Your task to perform on an android device: check android version Image 0: 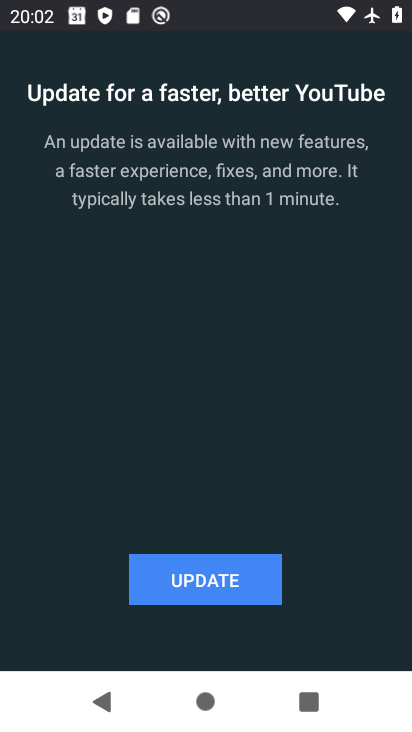
Step 0: press home button
Your task to perform on an android device: check android version Image 1: 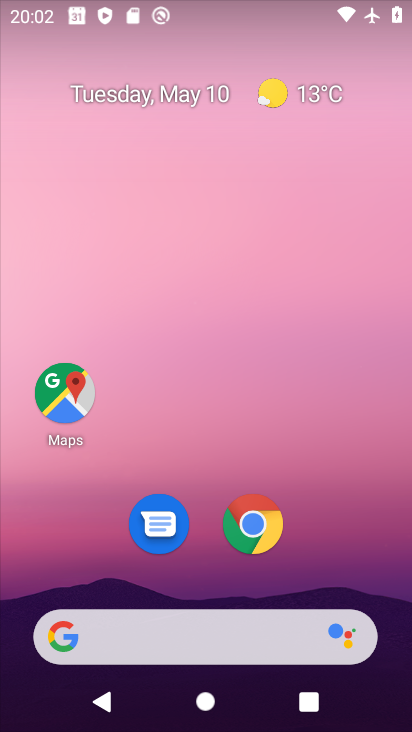
Step 1: drag from (307, 533) to (269, 23)
Your task to perform on an android device: check android version Image 2: 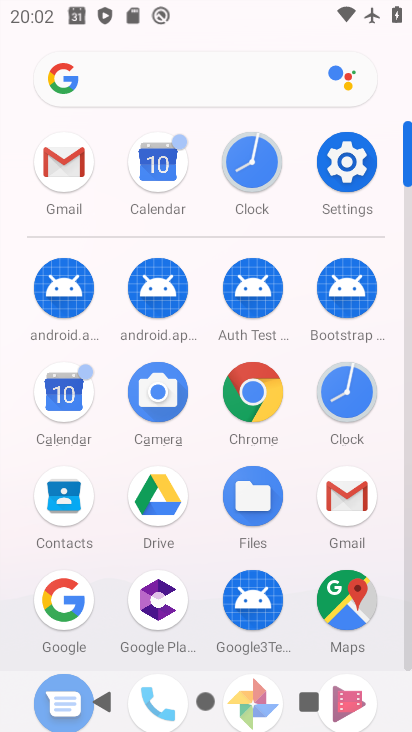
Step 2: click (349, 154)
Your task to perform on an android device: check android version Image 3: 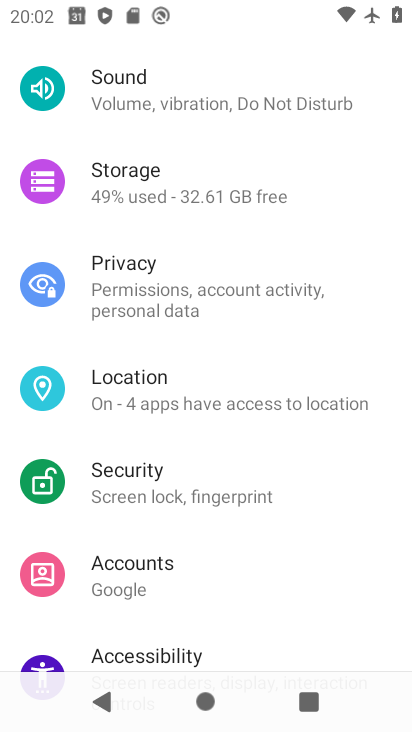
Step 3: drag from (274, 545) to (264, 51)
Your task to perform on an android device: check android version Image 4: 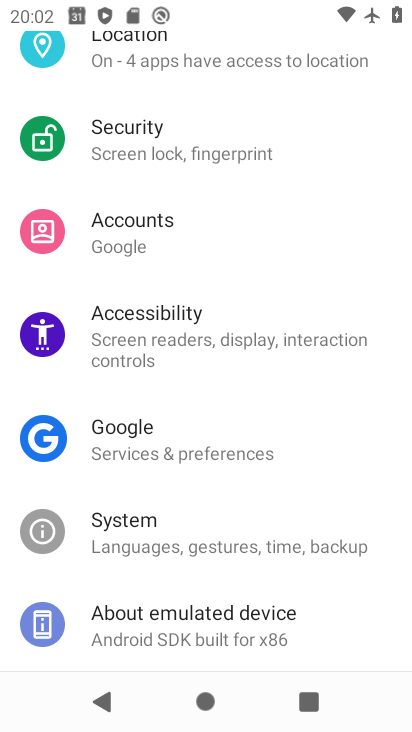
Step 4: click (214, 629)
Your task to perform on an android device: check android version Image 5: 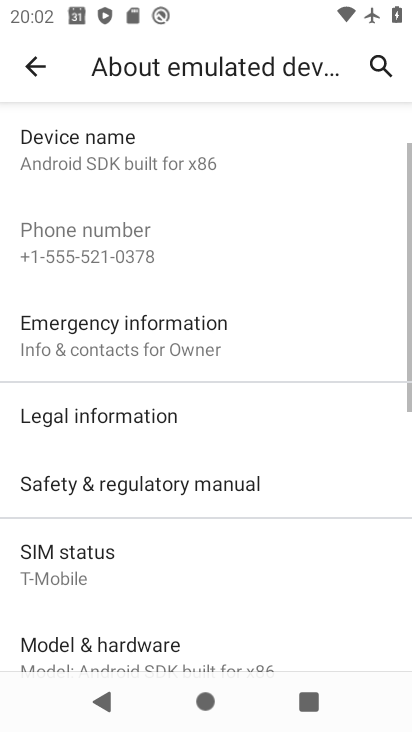
Step 5: drag from (219, 575) to (203, 173)
Your task to perform on an android device: check android version Image 6: 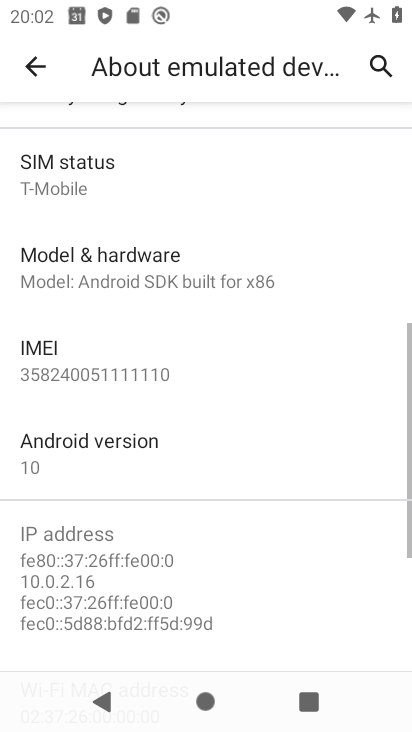
Step 6: click (139, 470)
Your task to perform on an android device: check android version Image 7: 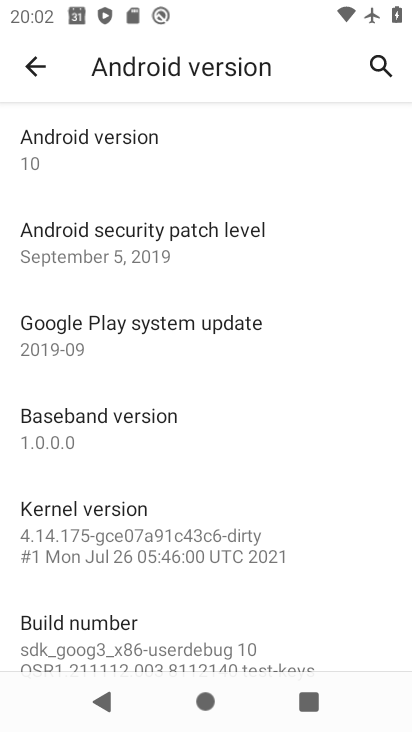
Step 7: task complete